Your task to perform on an android device: change timer sound Image 0: 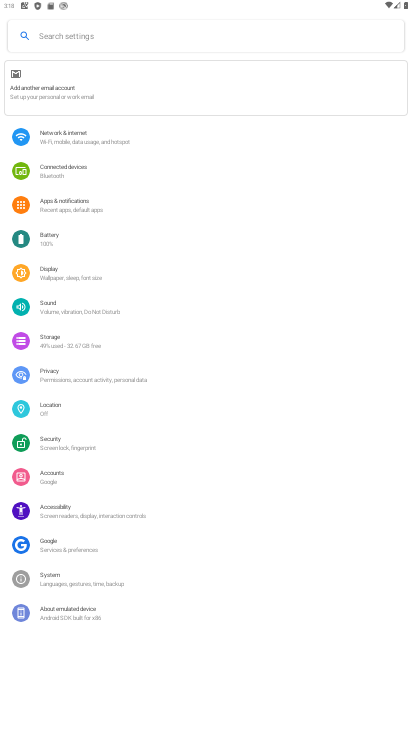
Step 0: press home button
Your task to perform on an android device: change timer sound Image 1: 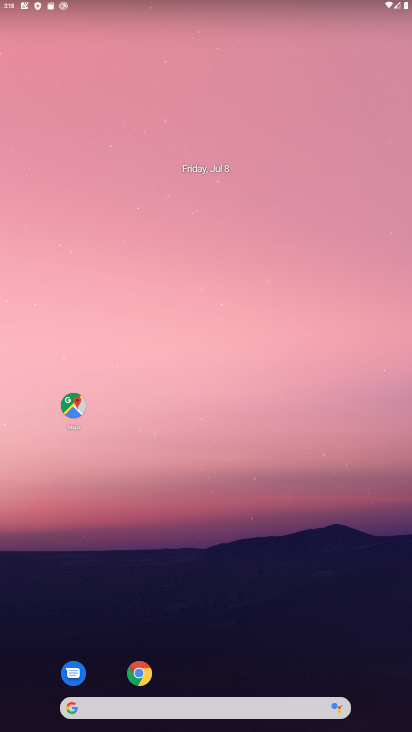
Step 1: drag from (254, 637) to (244, 1)
Your task to perform on an android device: change timer sound Image 2: 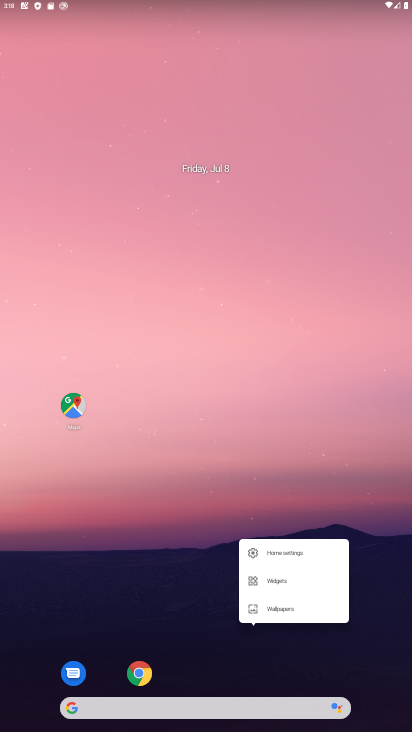
Step 2: drag from (217, 654) to (211, 3)
Your task to perform on an android device: change timer sound Image 3: 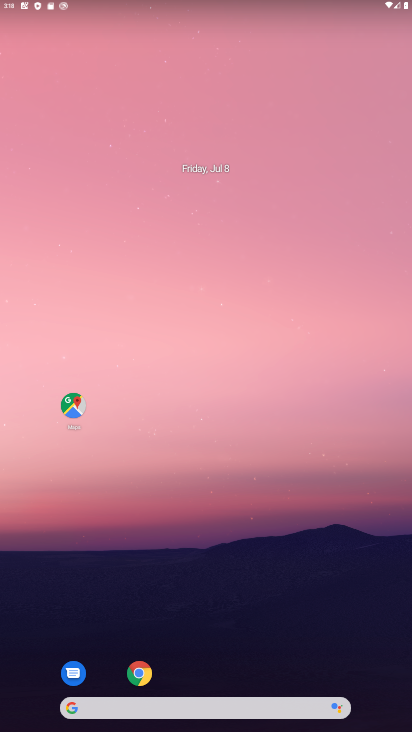
Step 3: drag from (218, 673) to (293, 11)
Your task to perform on an android device: change timer sound Image 4: 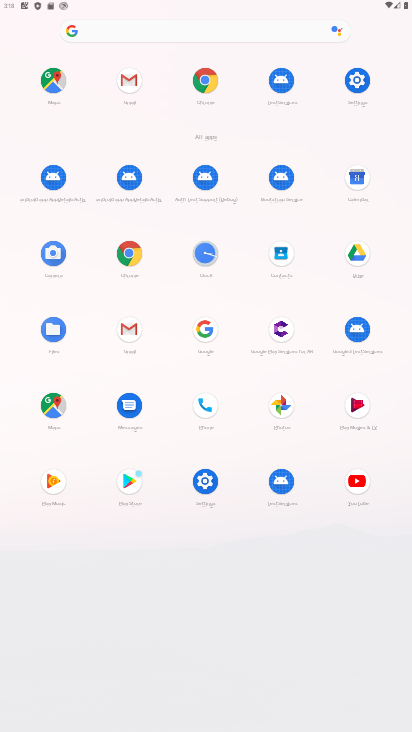
Step 4: click (208, 256)
Your task to perform on an android device: change timer sound Image 5: 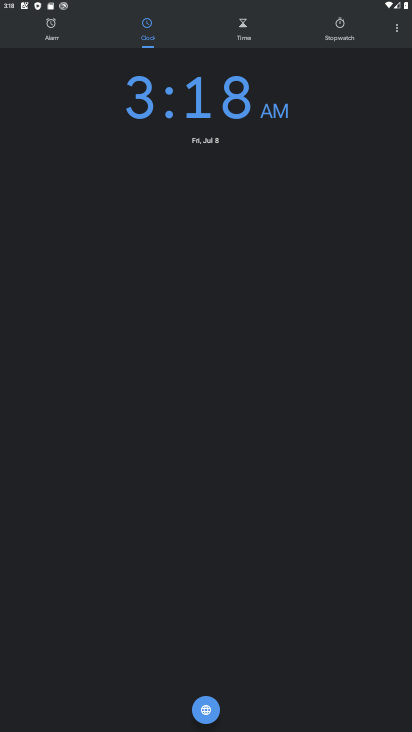
Step 5: click (243, 28)
Your task to perform on an android device: change timer sound Image 6: 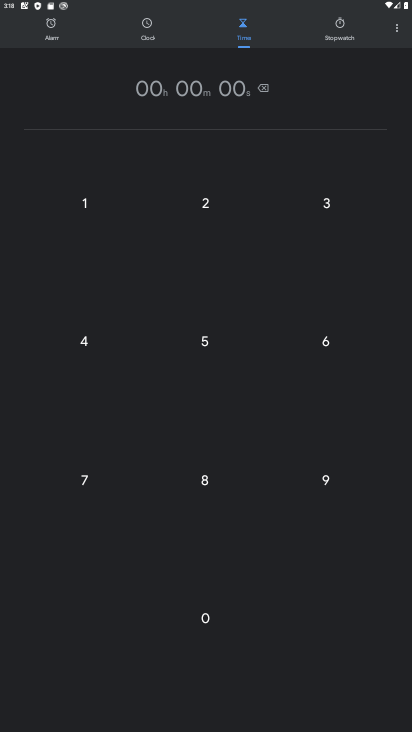
Step 6: click (207, 346)
Your task to perform on an android device: change timer sound Image 7: 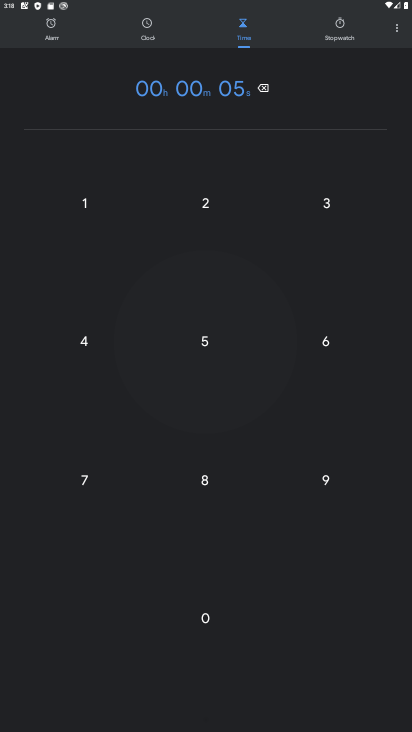
Step 7: click (205, 500)
Your task to perform on an android device: change timer sound Image 8: 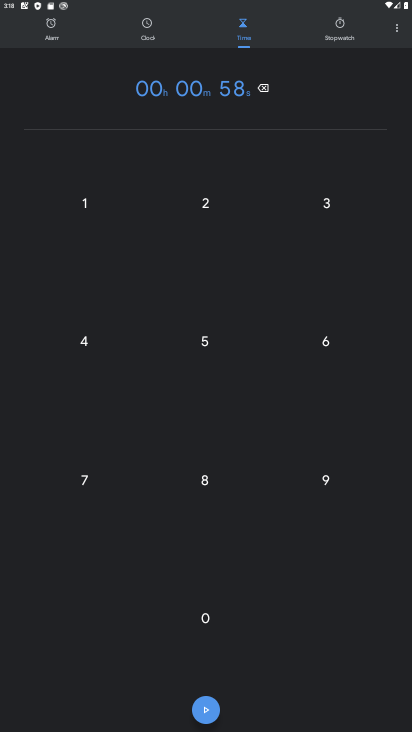
Step 8: click (79, 485)
Your task to perform on an android device: change timer sound Image 9: 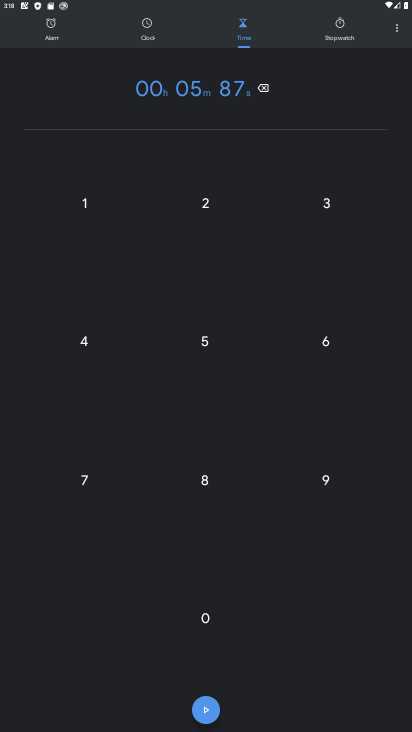
Step 9: click (336, 203)
Your task to perform on an android device: change timer sound Image 10: 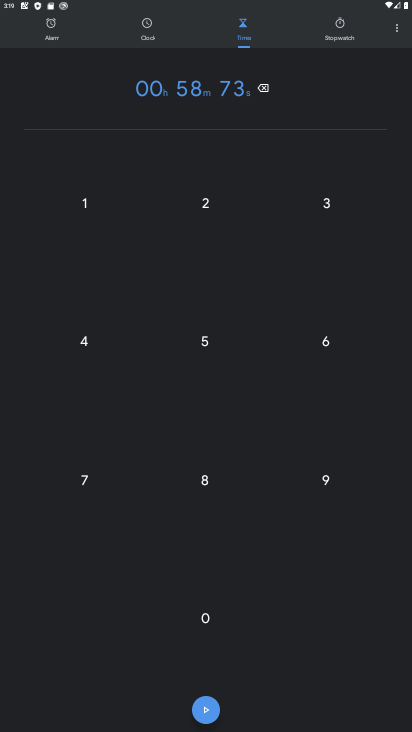
Step 10: click (210, 718)
Your task to perform on an android device: change timer sound Image 11: 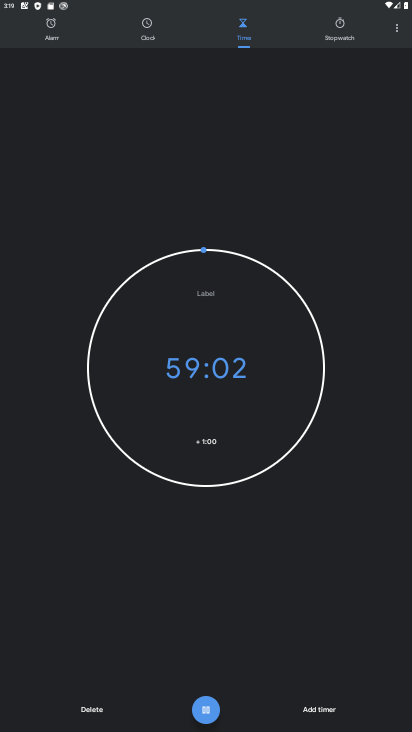
Step 11: task complete